Your task to perform on an android device: turn on showing notifications on the lock screen Image 0: 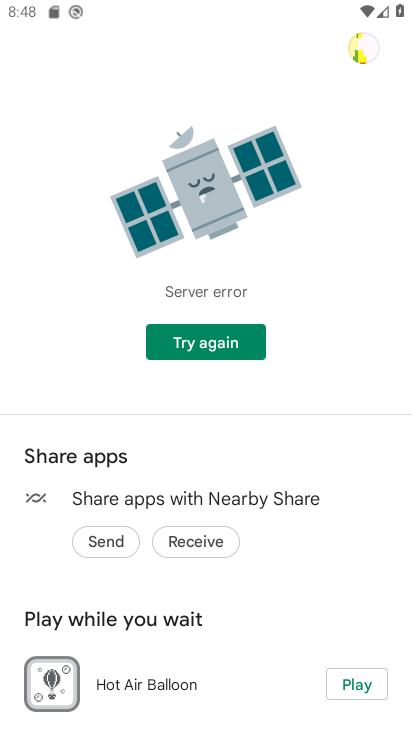
Step 0: press home button
Your task to perform on an android device: turn on showing notifications on the lock screen Image 1: 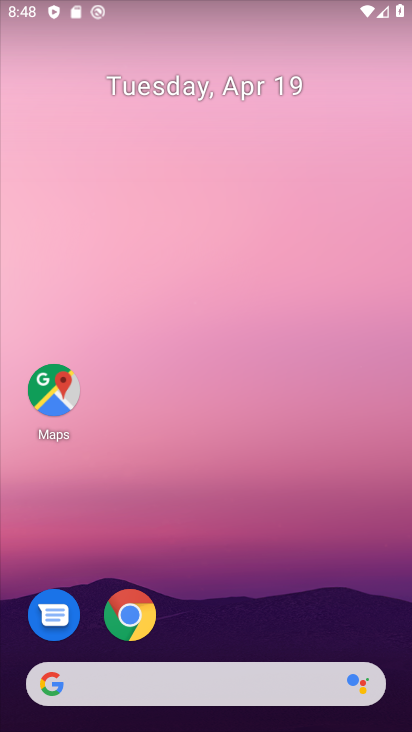
Step 1: drag from (232, 601) to (256, 11)
Your task to perform on an android device: turn on showing notifications on the lock screen Image 2: 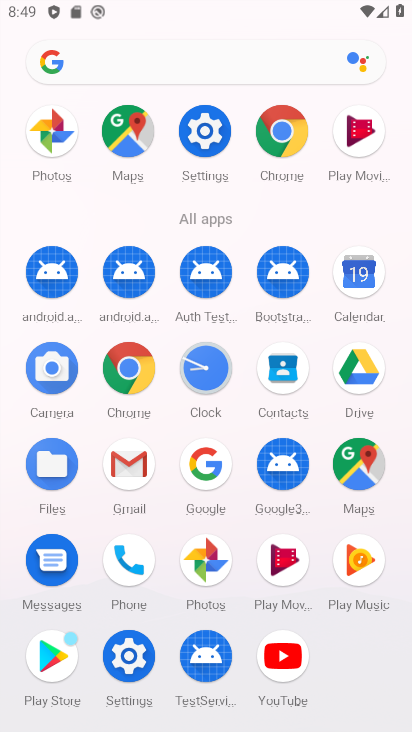
Step 2: click (139, 660)
Your task to perform on an android device: turn on showing notifications on the lock screen Image 3: 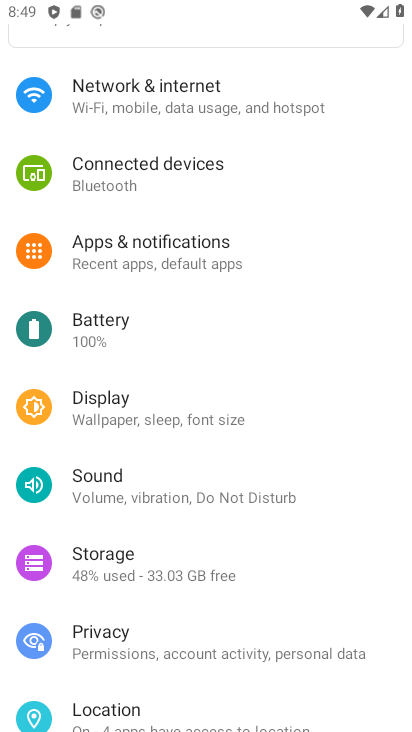
Step 3: click (212, 272)
Your task to perform on an android device: turn on showing notifications on the lock screen Image 4: 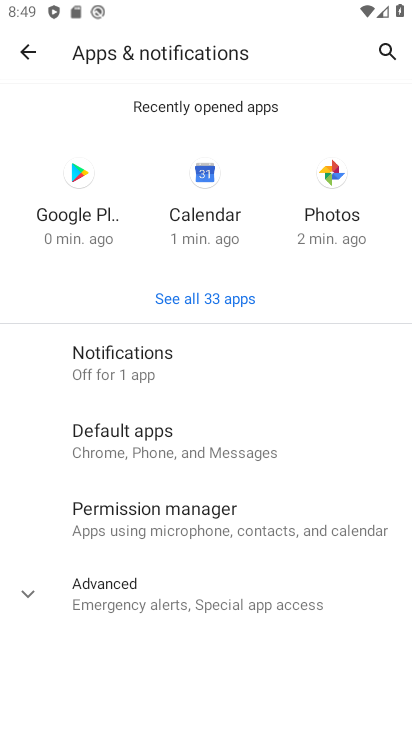
Step 4: click (174, 350)
Your task to perform on an android device: turn on showing notifications on the lock screen Image 5: 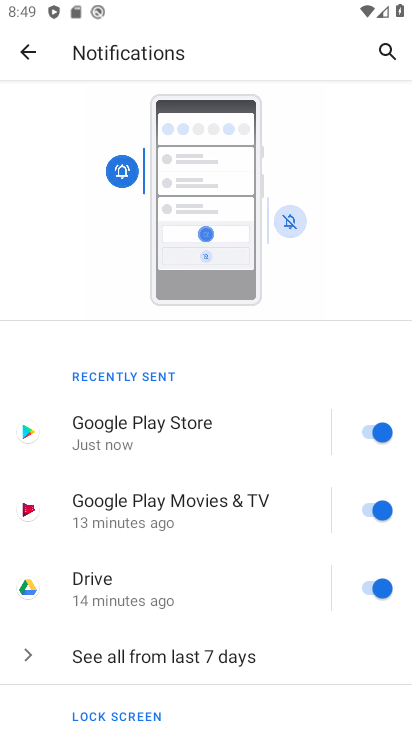
Step 5: drag from (252, 626) to (267, 89)
Your task to perform on an android device: turn on showing notifications on the lock screen Image 6: 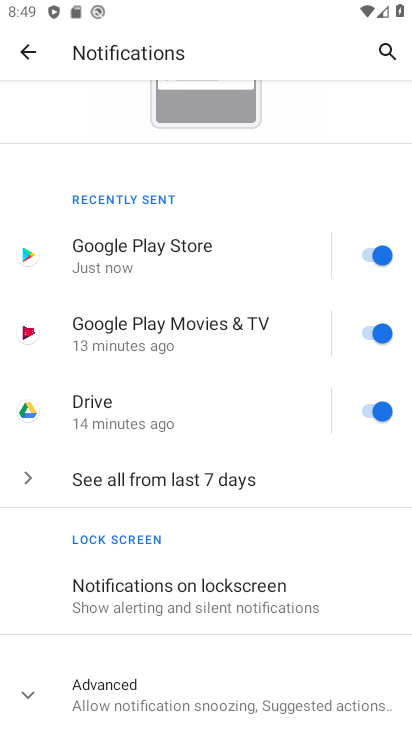
Step 6: click (246, 618)
Your task to perform on an android device: turn on showing notifications on the lock screen Image 7: 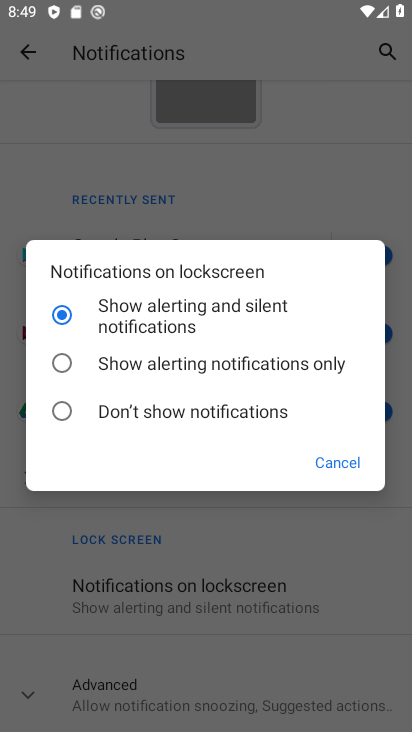
Step 7: task complete